Your task to perform on an android device: see sites visited before in the chrome app Image 0: 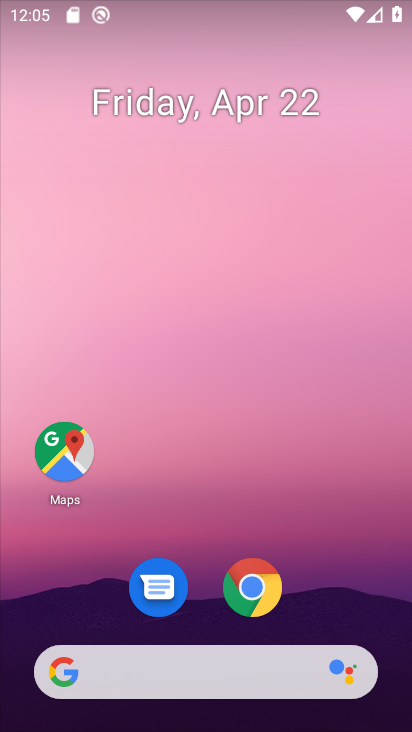
Step 0: click (256, 601)
Your task to perform on an android device: see sites visited before in the chrome app Image 1: 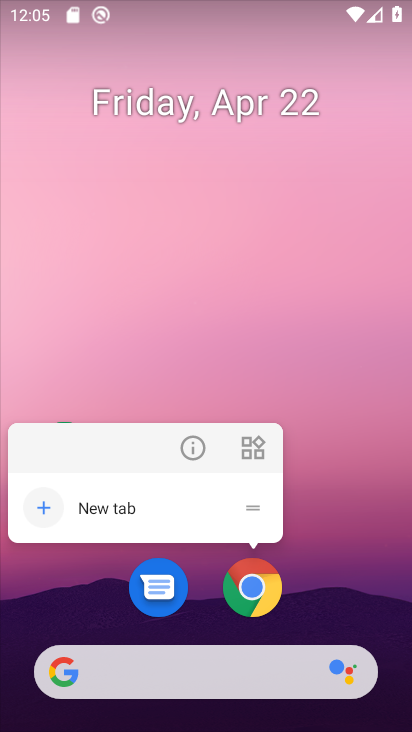
Step 1: click (256, 599)
Your task to perform on an android device: see sites visited before in the chrome app Image 2: 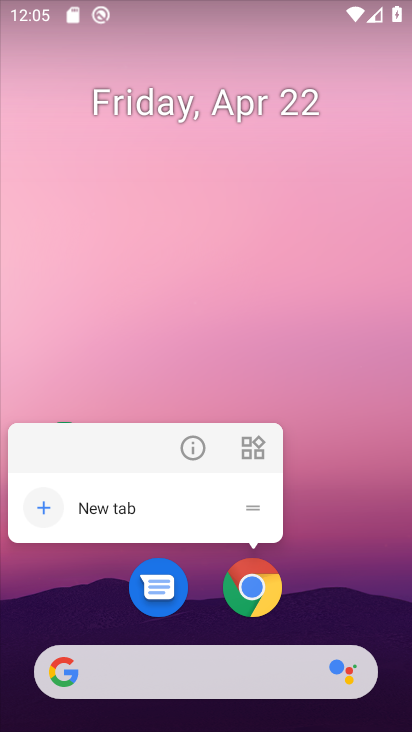
Step 2: click (274, 593)
Your task to perform on an android device: see sites visited before in the chrome app Image 3: 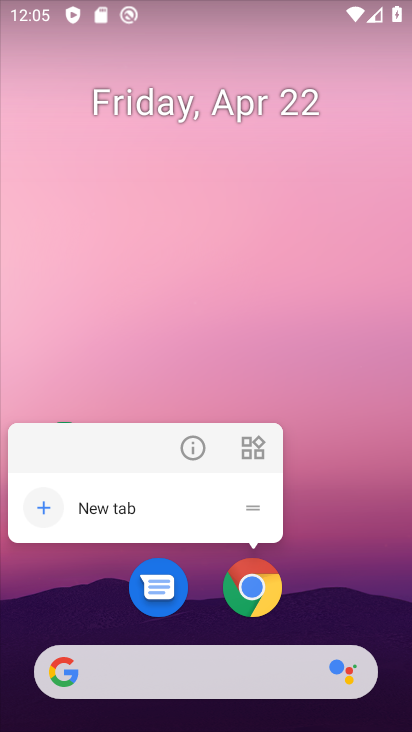
Step 3: click (262, 593)
Your task to perform on an android device: see sites visited before in the chrome app Image 4: 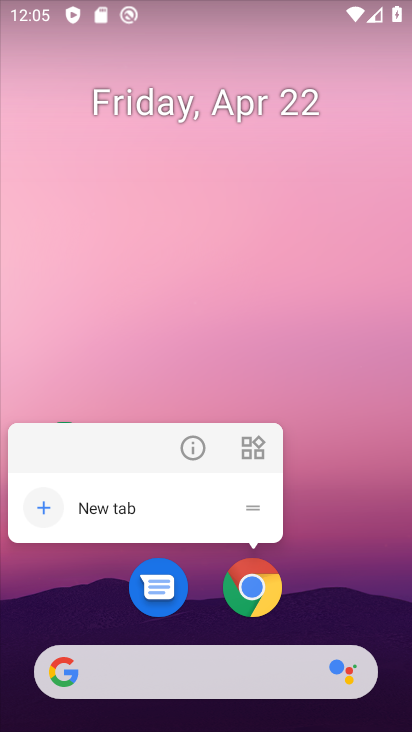
Step 4: click (262, 593)
Your task to perform on an android device: see sites visited before in the chrome app Image 5: 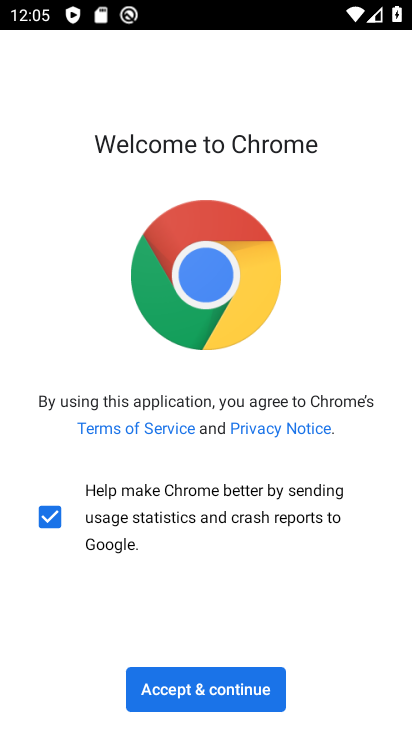
Step 5: click (229, 693)
Your task to perform on an android device: see sites visited before in the chrome app Image 6: 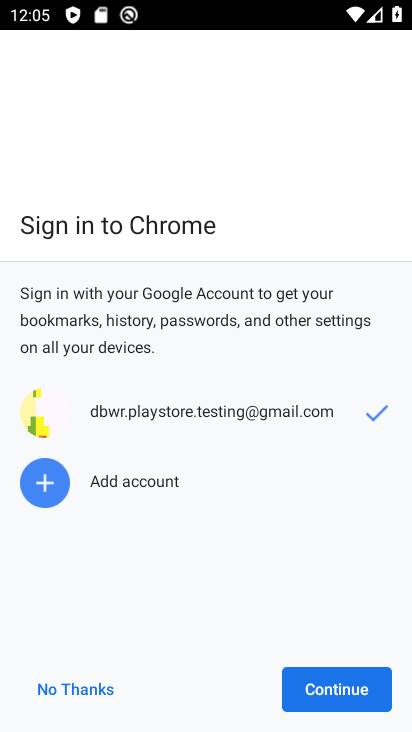
Step 6: click (378, 683)
Your task to perform on an android device: see sites visited before in the chrome app Image 7: 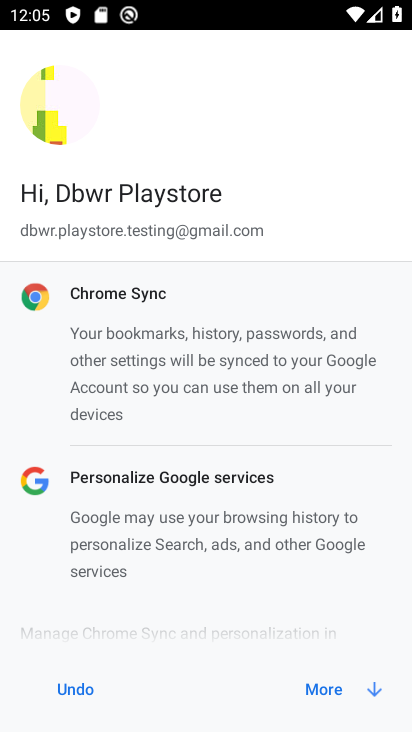
Step 7: click (352, 699)
Your task to perform on an android device: see sites visited before in the chrome app Image 8: 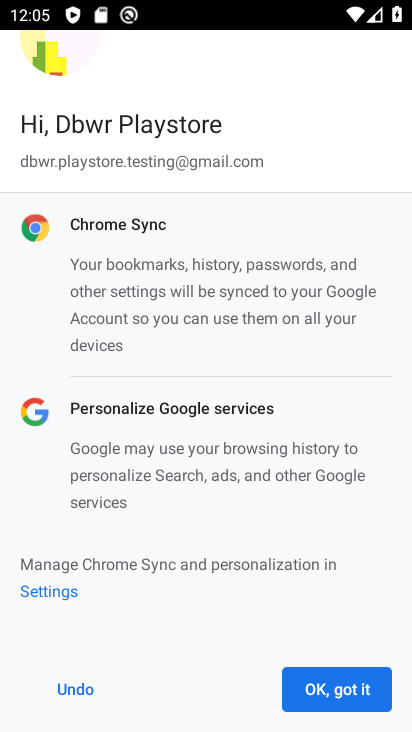
Step 8: click (352, 699)
Your task to perform on an android device: see sites visited before in the chrome app Image 9: 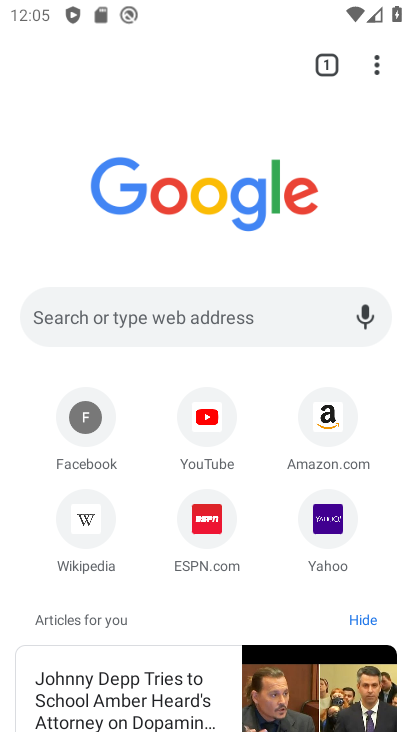
Step 9: click (385, 73)
Your task to perform on an android device: see sites visited before in the chrome app Image 10: 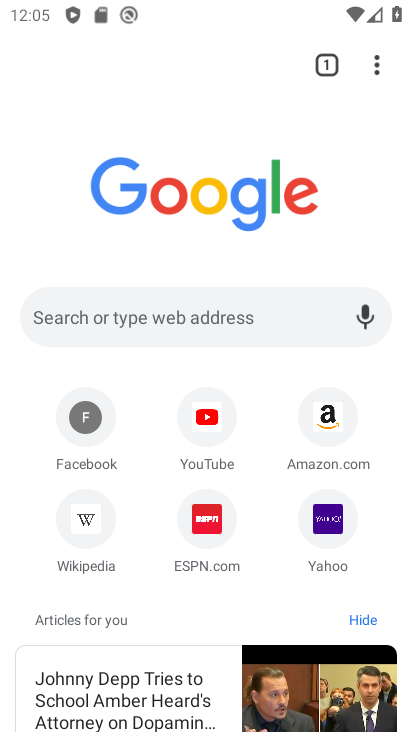
Step 10: task complete